Your task to perform on an android device: Search for Italian restaurants on Maps Image 0: 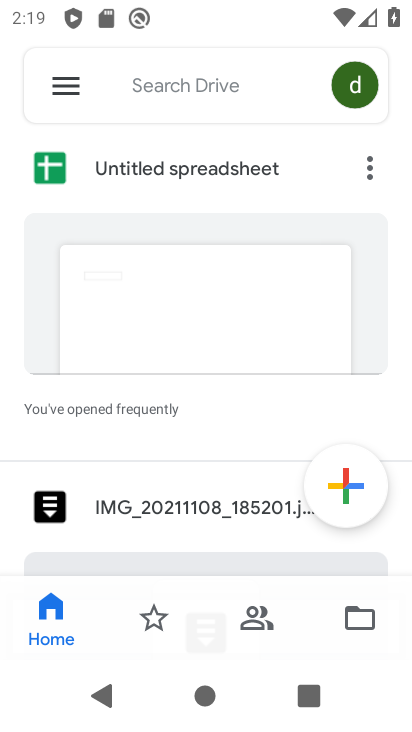
Step 0: press home button
Your task to perform on an android device: Search for Italian restaurants on Maps Image 1: 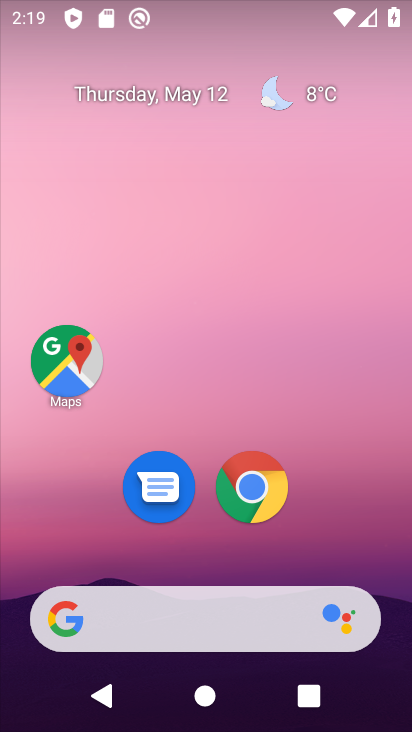
Step 1: click (60, 370)
Your task to perform on an android device: Search for Italian restaurants on Maps Image 2: 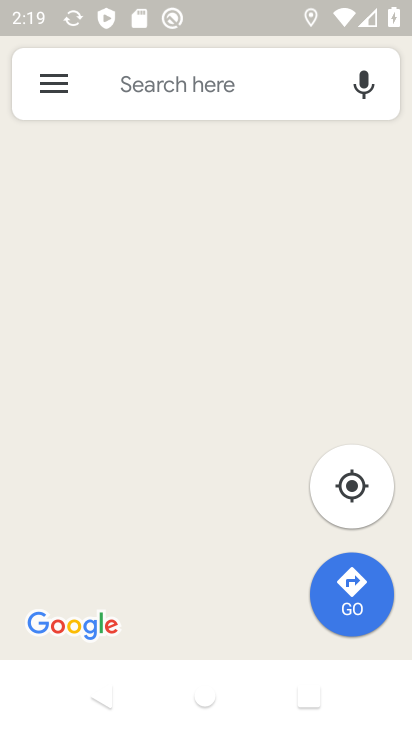
Step 2: click (148, 81)
Your task to perform on an android device: Search for Italian restaurants on Maps Image 3: 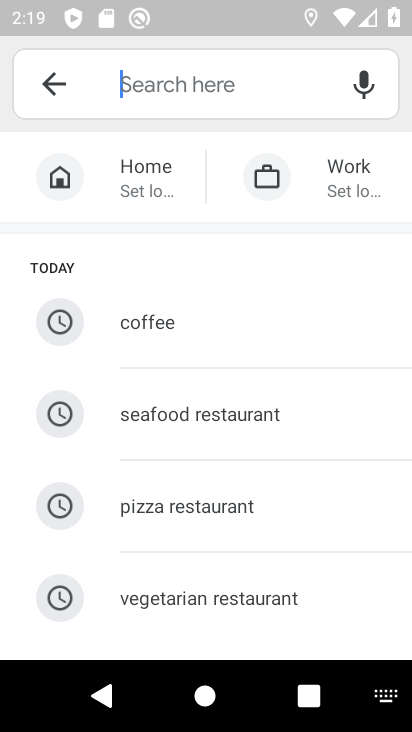
Step 3: type "italian"
Your task to perform on an android device: Search for Italian restaurants on Maps Image 4: 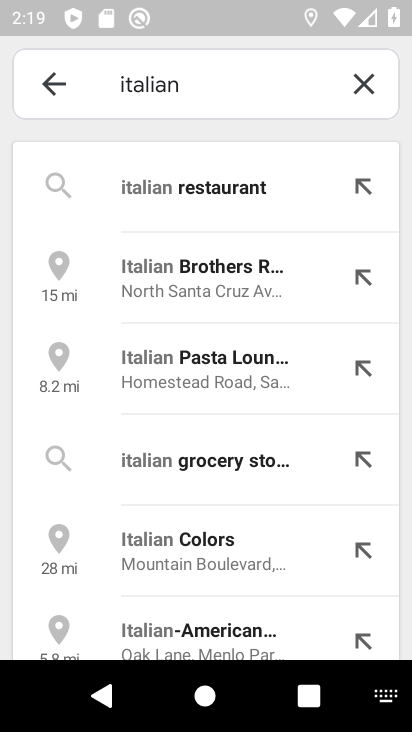
Step 4: click (153, 188)
Your task to perform on an android device: Search for Italian restaurants on Maps Image 5: 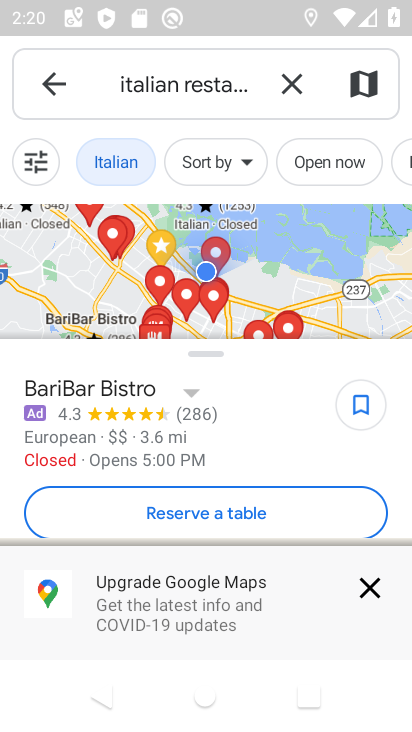
Step 5: task complete